Your task to perform on an android device: Turn on the flashlight Image 0: 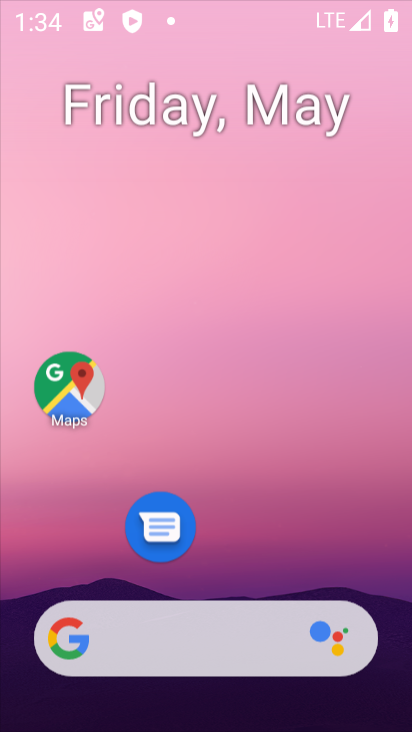
Step 0: click (255, 227)
Your task to perform on an android device: Turn on the flashlight Image 1: 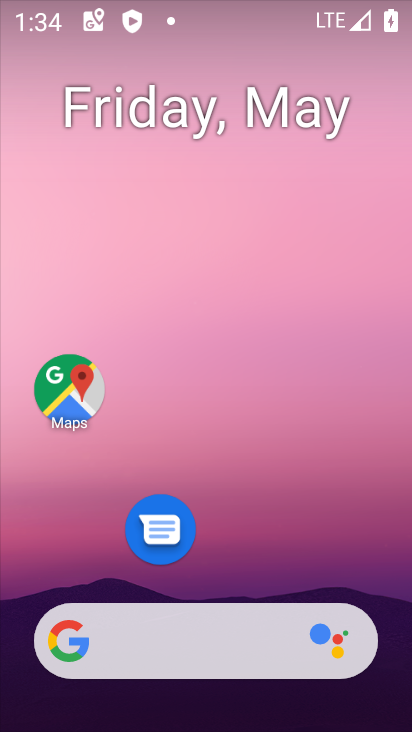
Step 1: drag from (220, 578) to (263, 115)
Your task to perform on an android device: Turn on the flashlight Image 2: 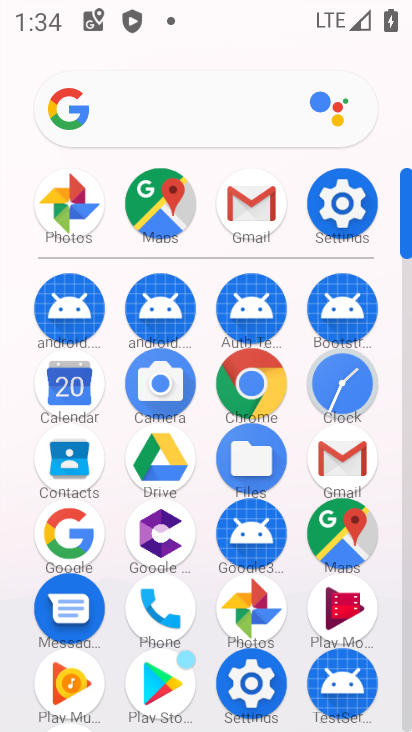
Step 2: drag from (346, 276) to (100, 74)
Your task to perform on an android device: Turn on the flashlight Image 3: 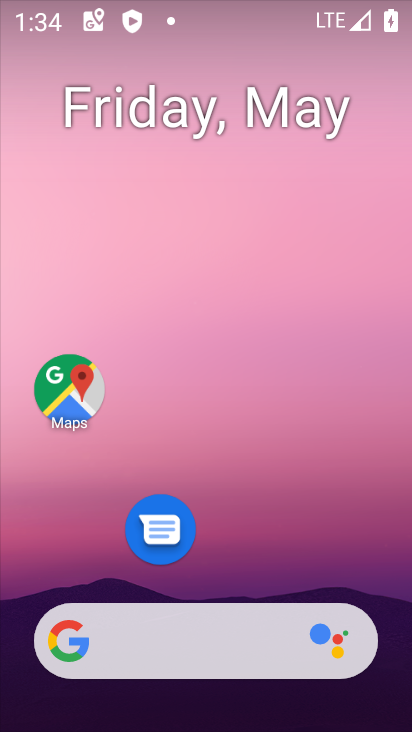
Step 3: drag from (221, 132) to (225, 50)
Your task to perform on an android device: Turn on the flashlight Image 4: 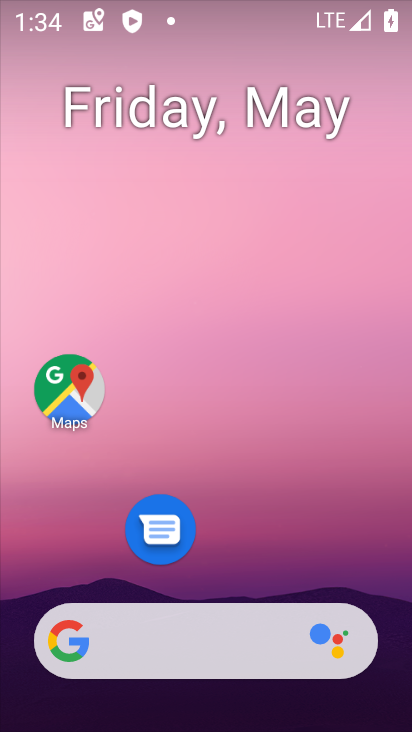
Step 4: drag from (202, 554) to (248, 195)
Your task to perform on an android device: Turn on the flashlight Image 5: 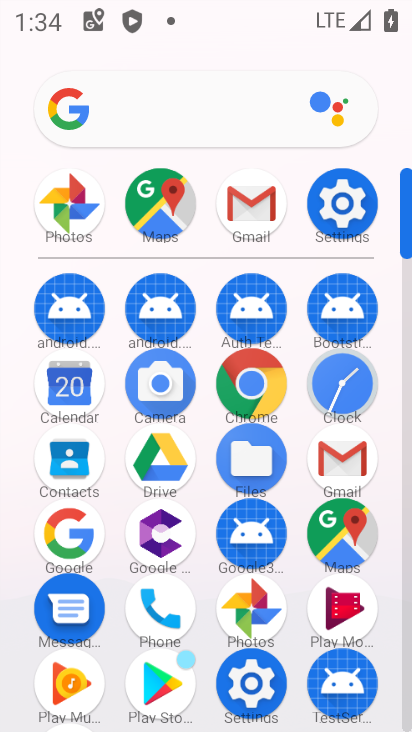
Step 5: click (333, 203)
Your task to perform on an android device: Turn on the flashlight Image 6: 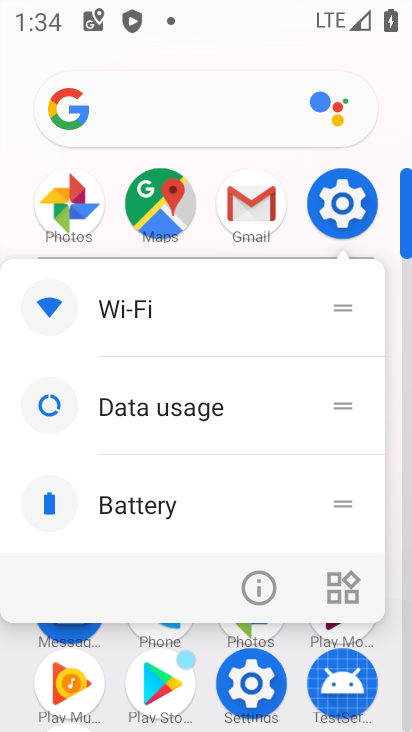
Step 6: click (237, 580)
Your task to perform on an android device: Turn on the flashlight Image 7: 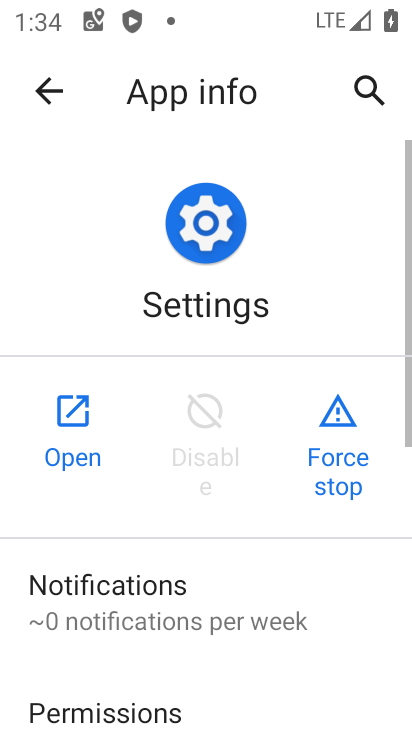
Step 7: click (79, 392)
Your task to perform on an android device: Turn on the flashlight Image 8: 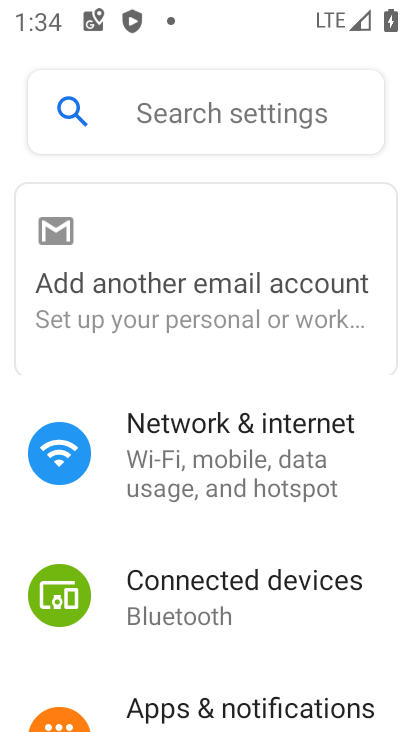
Step 8: click (208, 121)
Your task to perform on an android device: Turn on the flashlight Image 9: 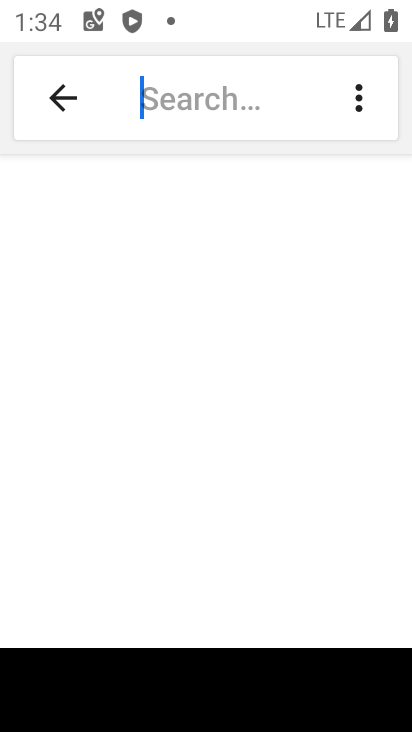
Step 9: type "flashlight"
Your task to perform on an android device: Turn on the flashlight Image 10: 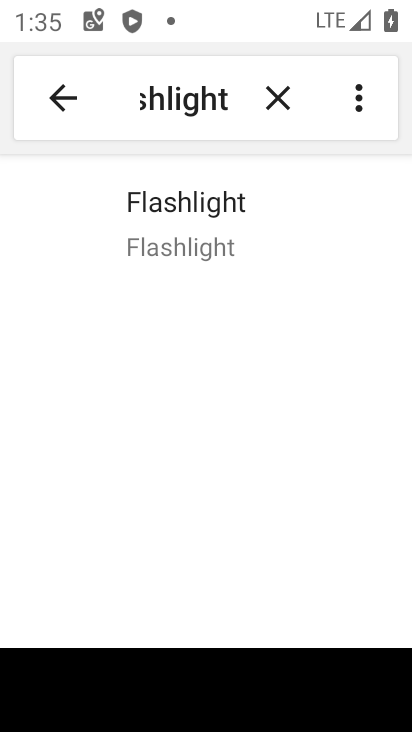
Step 10: click (218, 230)
Your task to perform on an android device: Turn on the flashlight Image 11: 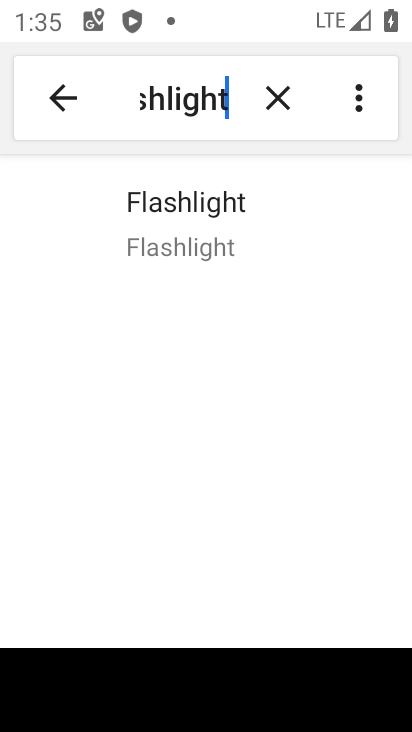
Step 11: click (254, 272)
Your task to perform on an android device: Turn on the flashlight Image 12: 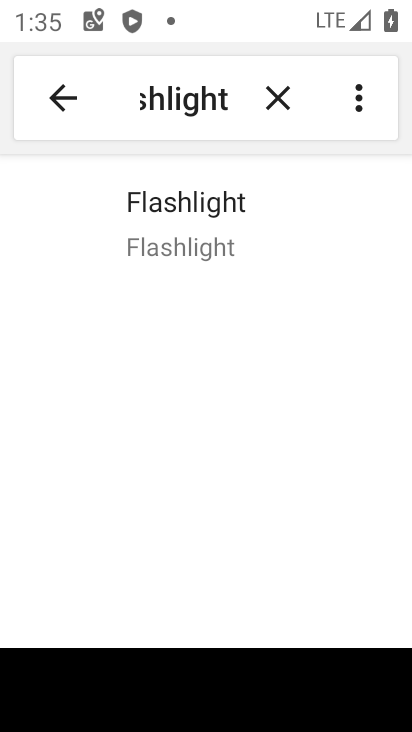
Step 12: task complete